Your task to perform on an android device: Is it going to rain tomorrow? Image 0: 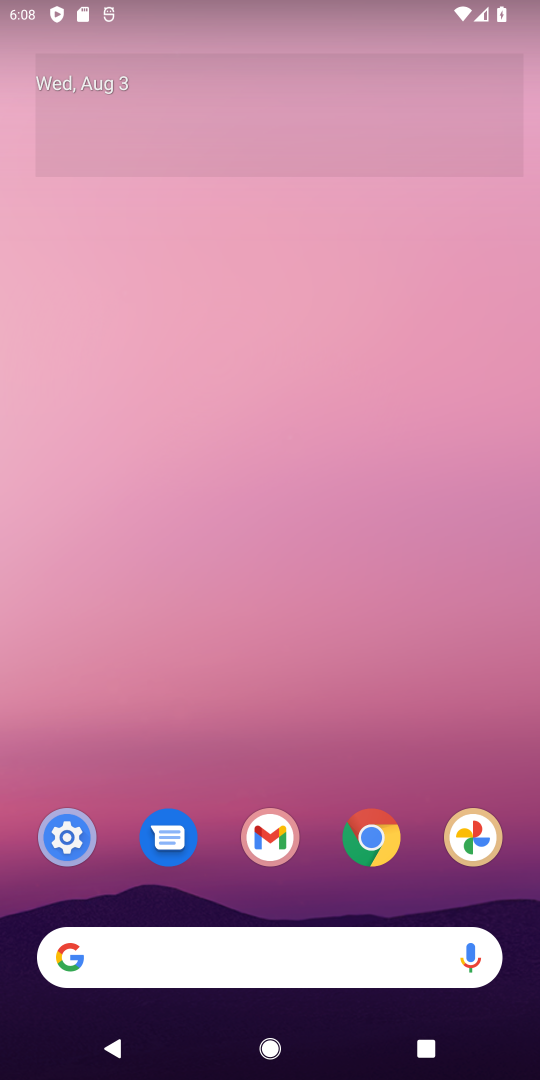
Step 0: click (77, 963)
Your task to perform on an android device: Is it going to rain tomorrow? Image 1: 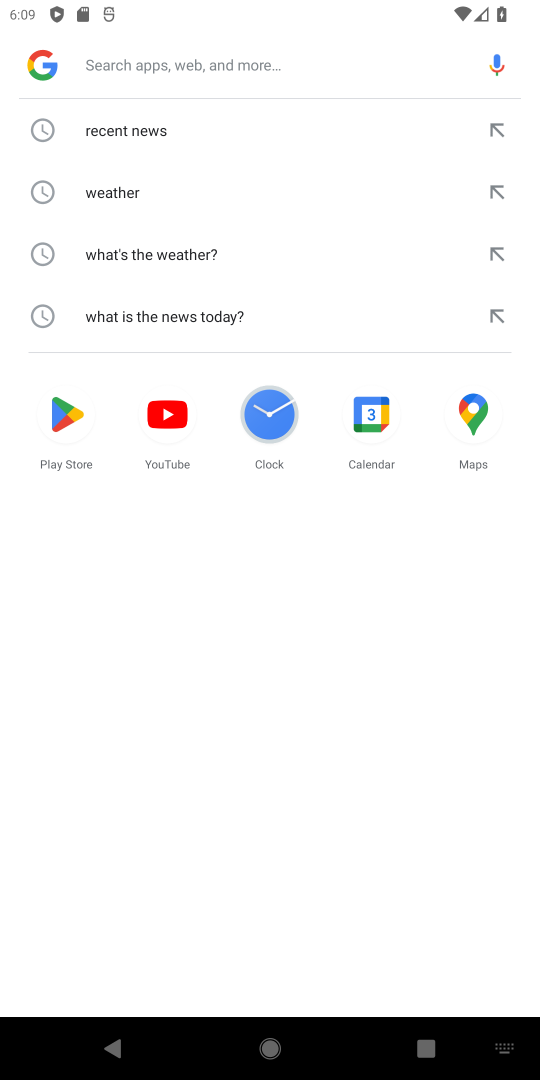
Step 1: press enter
Your task to perform on an android device: Is it going to rain tomorrow? Image 2: 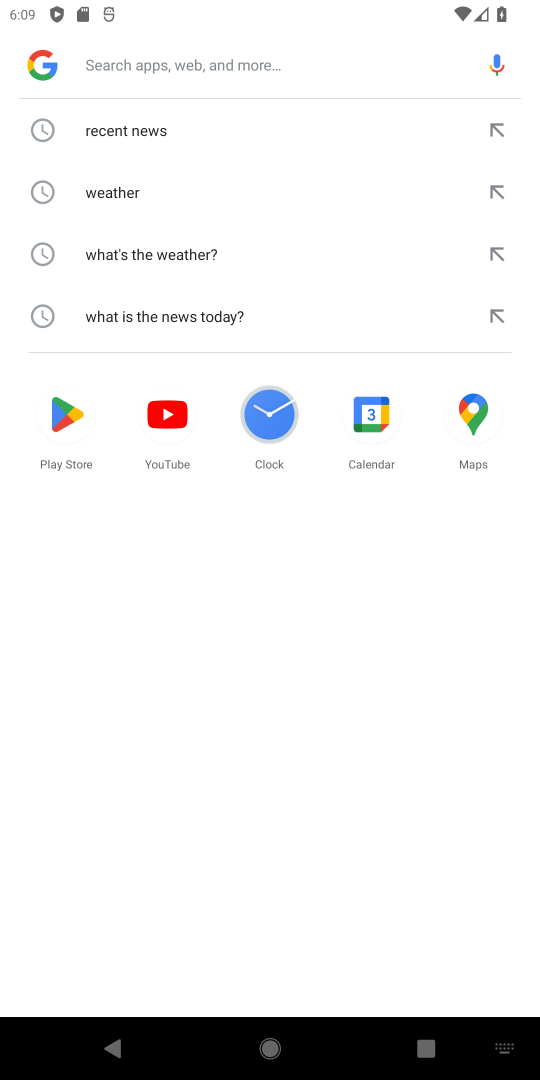
Step 2: type "rain tomorrow?"
Your task to perform on an android device: Is it going to rain tomorrow? Image 3: 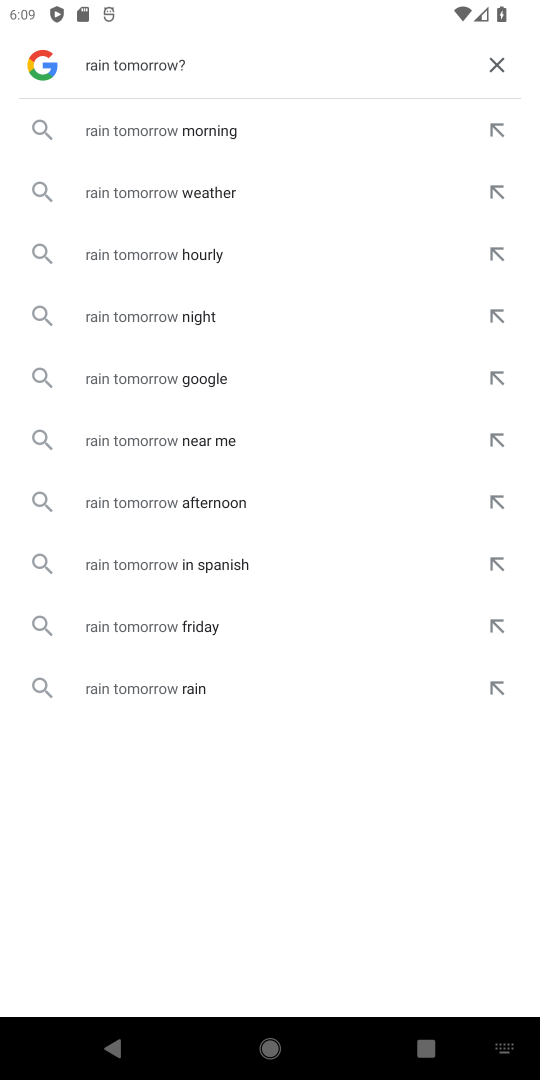
Step 3: press enter
Your task to perform on an android device: Is it going to rain tomorrow? Image 4: 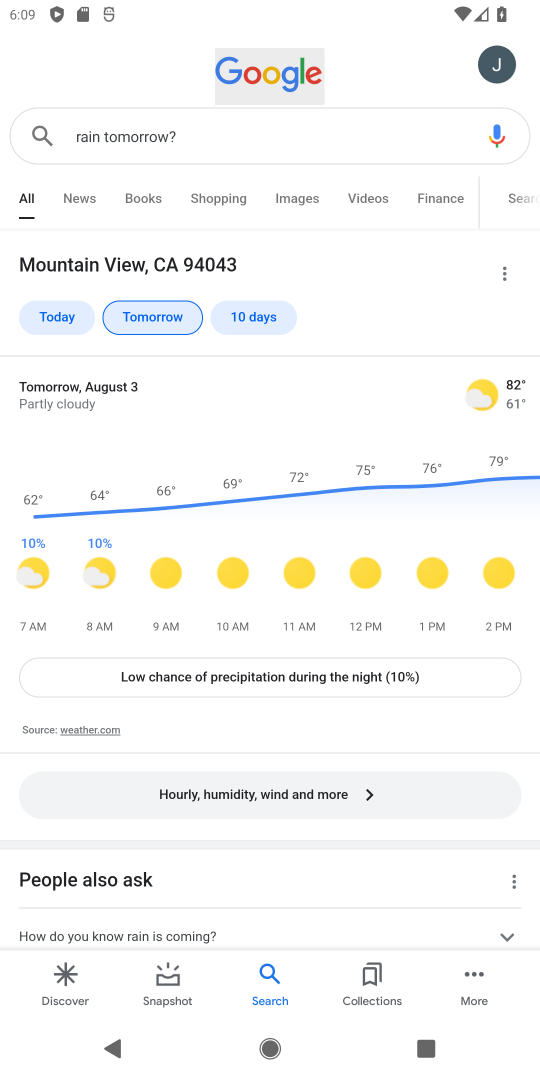
Step 4: task complete